Your task to perform on an android device: turn smart compose on in the gmail app Image 0: 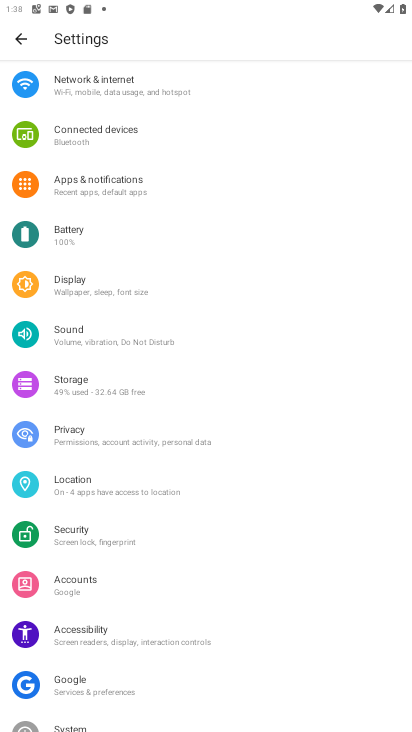
Step 0: press back button
Your task to perform on an android device: turn smart compose on in the gmail app Image 1: 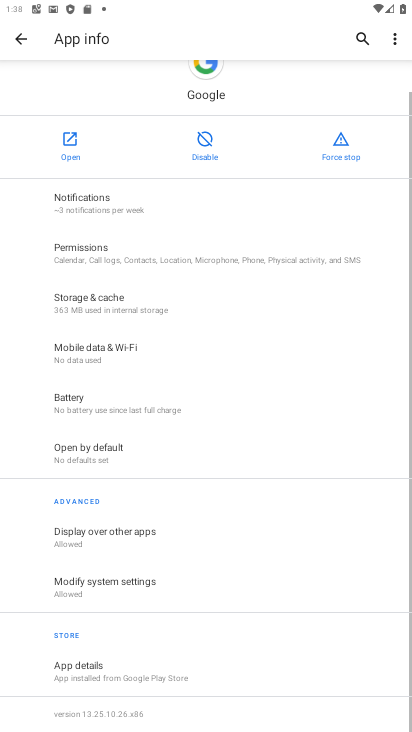
Step 1: press back button
Your task to perform on an android device: turn smart compose on in the gmail app Image 2: 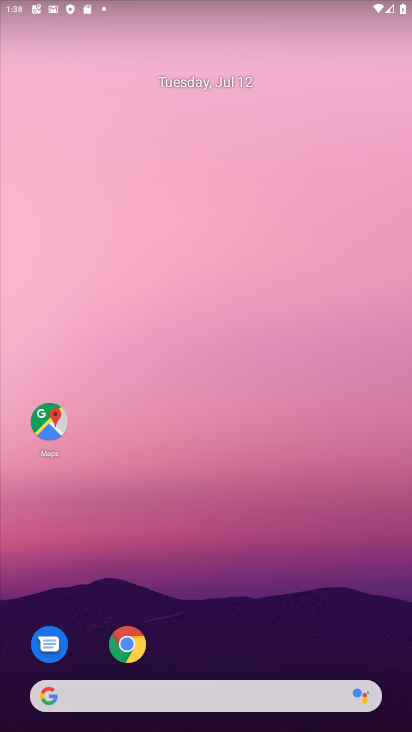
Step 2: drag from (242, 687) to (287, 5)
Your task to perform on an android device: turn smart compose on in the gmail app Image 3: 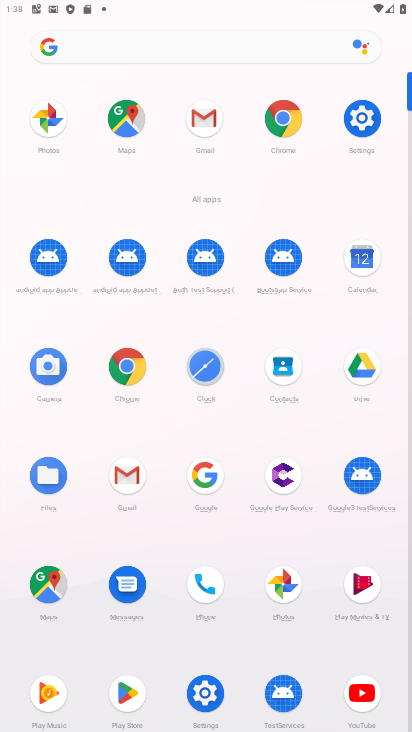
Step 3: click (134, 459)
Your task to perform on an android device: turn smart compose on in the gmail app Image 4: 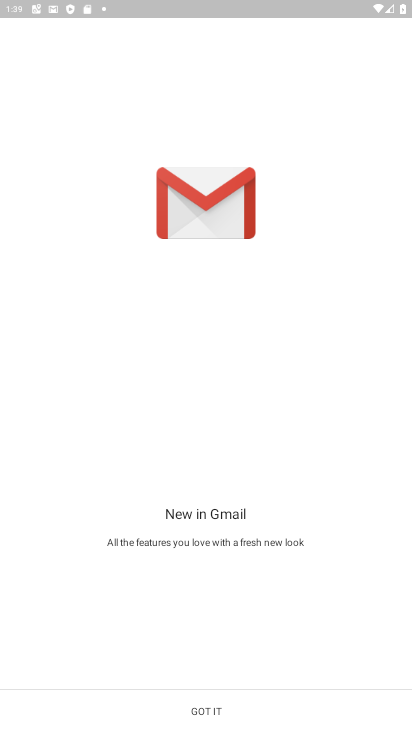
Step 4: click (198, 709)
Your task to perform on an android device: turn smart compose on in the gmail app Image 5: 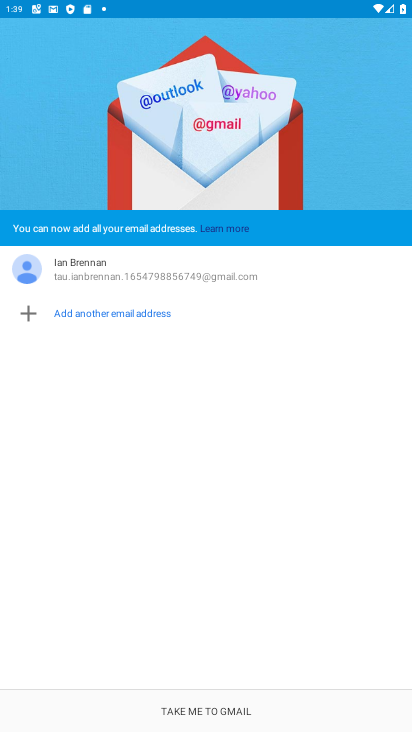
Step 5: click (204, 701)
Your task to perform on an android device: turn smart compose on in the gmail app Image 6: 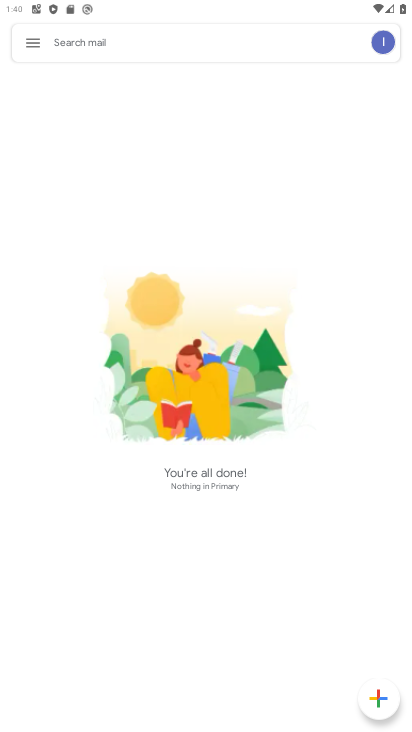
Step 6: click (38, 45)
Your task to perform on an android device: turn smart compose on in the gmail app Image 7: 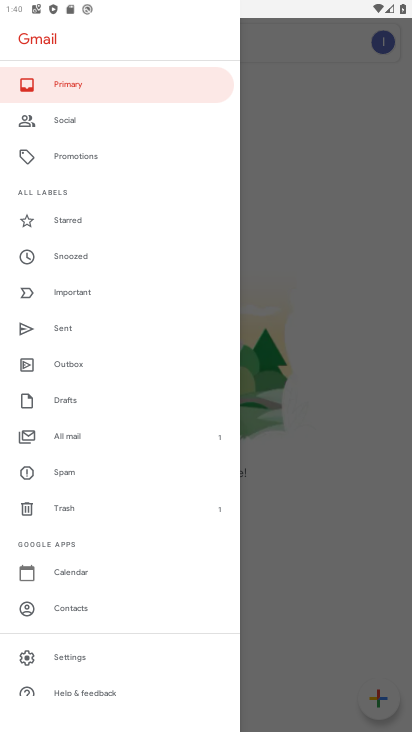
Step 7: click (83, 654)
Your task to perform on an android device: turn smart compose on in the gmail app Image 8: 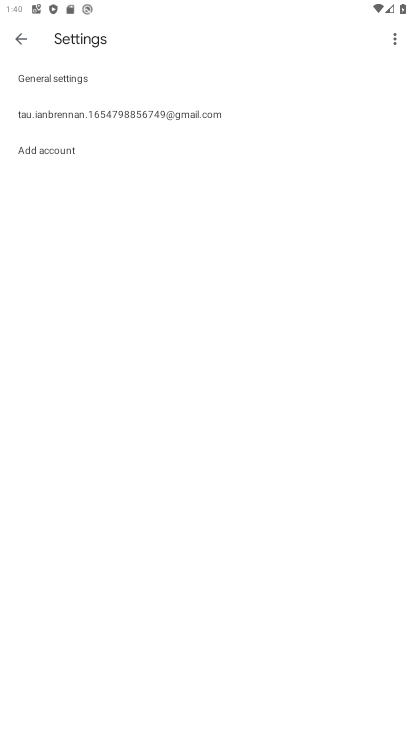
Step 8: click (95, 126)
Your task to perform on an android device: turn smart compose on in the gmail app Image 9: 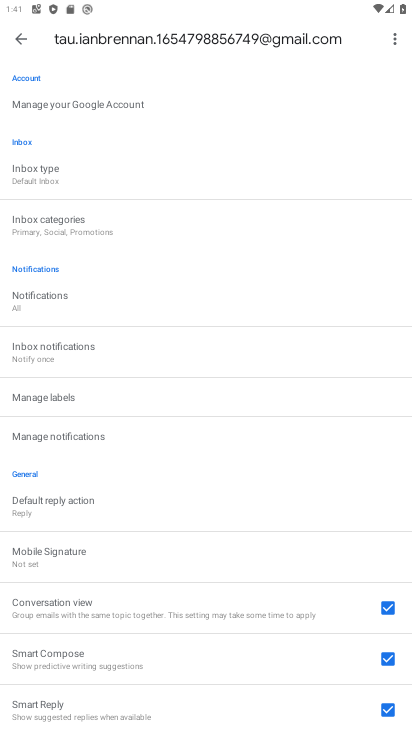
Step 9: task complete